Your task to perform on an android device: Go to eBay Image 0: 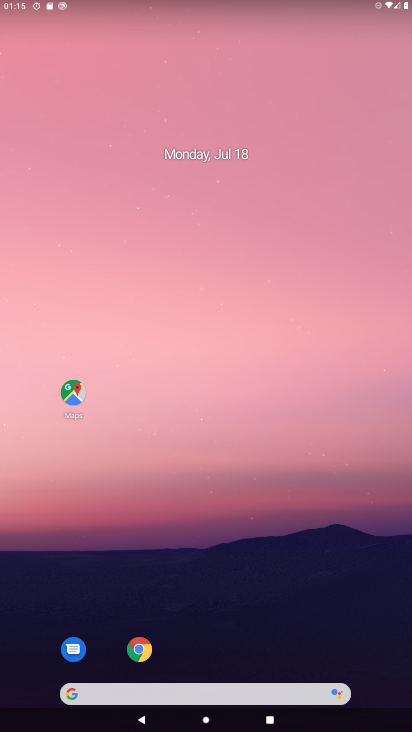
Step 0: click (138, 646)
Your task to perform on an android device: Go to eBay Image 1: 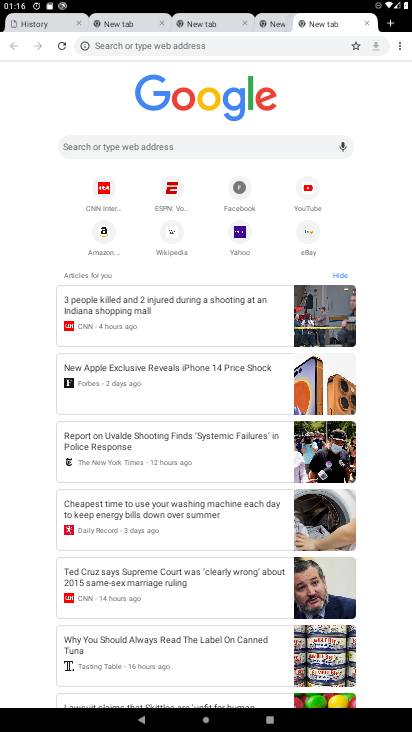
Step 1: click (134, 42)
Your task to perform on an android device: Go to eBay Image 2: 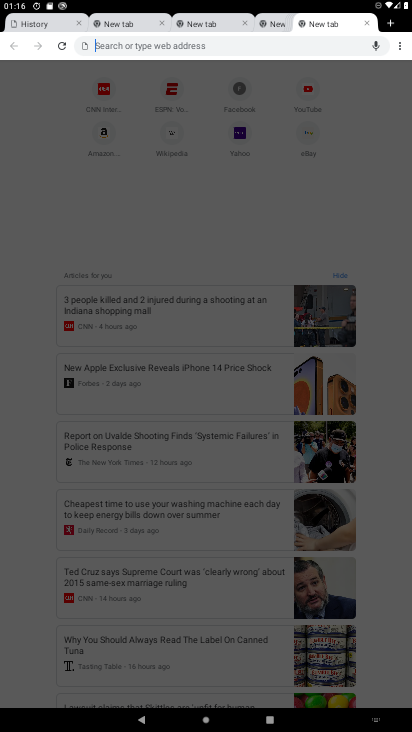
Step 2: type "eBay"
Your task to perform on an android device: Go to eBay Image 3: 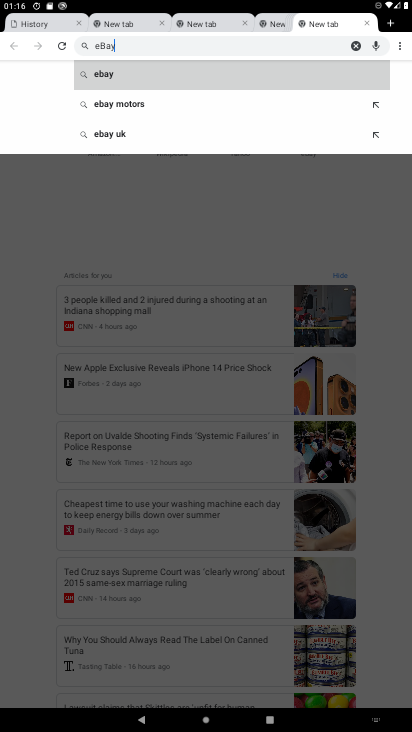
Step 3: type ""
Your task to perform on an android device: Go to eBay Image 4: 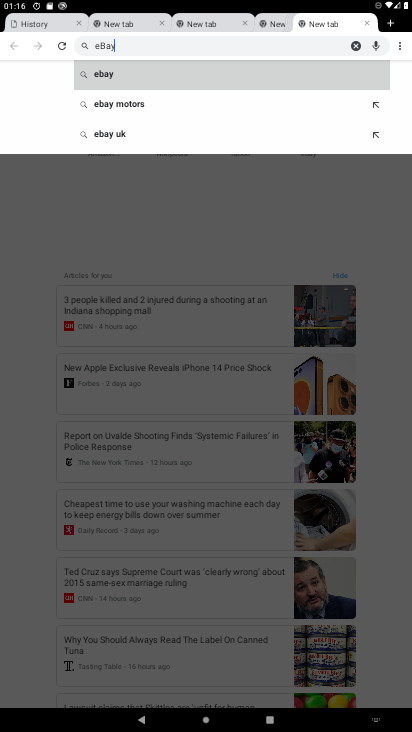
Step 4: click (106, 79)
Your task to perform on an android device: Go to eBay Image 5: 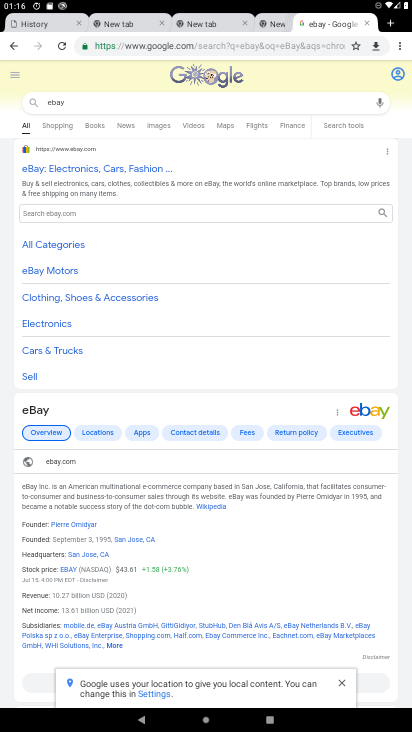
Step 5: task complete